Your task to perform on an android device: Open CNN.com Image 0: 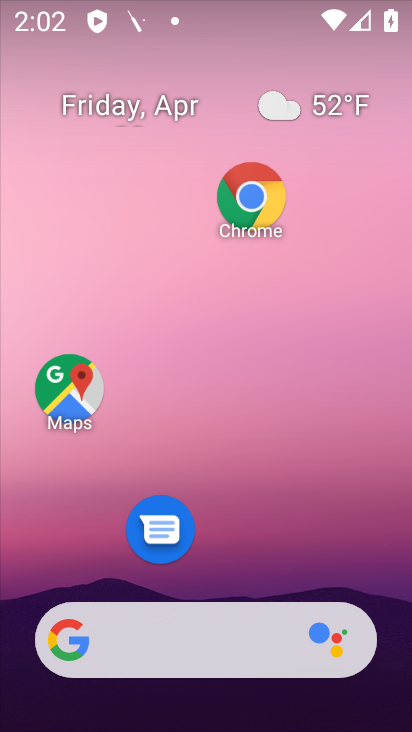
Step 0: click (245, 632)
Your task to perform on an android device: Open CNN.com Image 1: 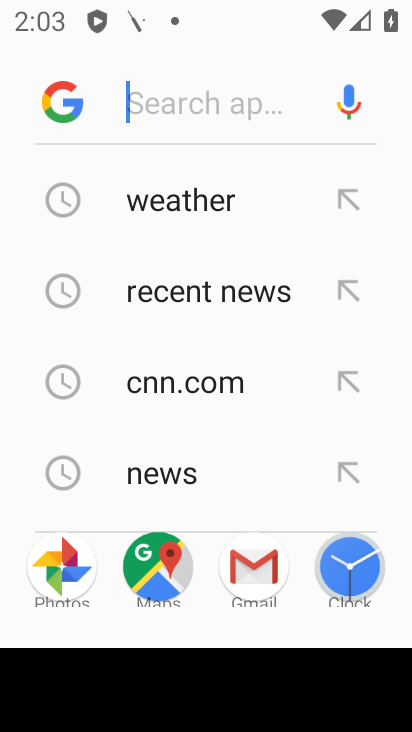
Step 1: type "CNN.com"
Your task to perform on an android device: Open CNN.com Image 2: 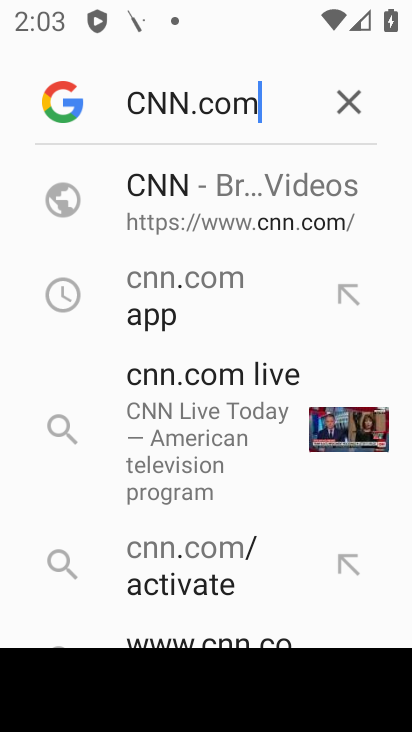
Step 2: click (223, 221)
Your task to perform on an android device: Open CNN.com Image 3: 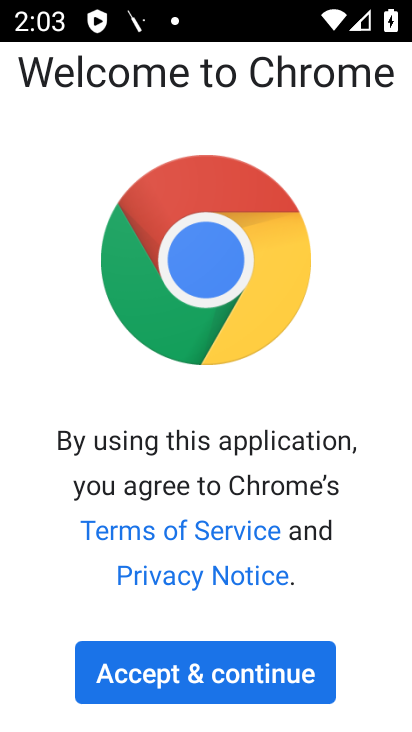
Step 3: click (283, 659)
Your task to perform on an android device: Open CNN.com Image 4: 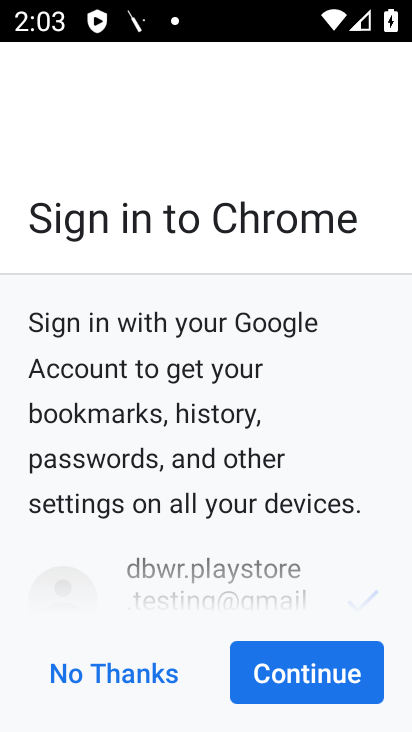
Step 4: click (288, 655)
Your task to perform on an android device: Open CNN.com Image 5: 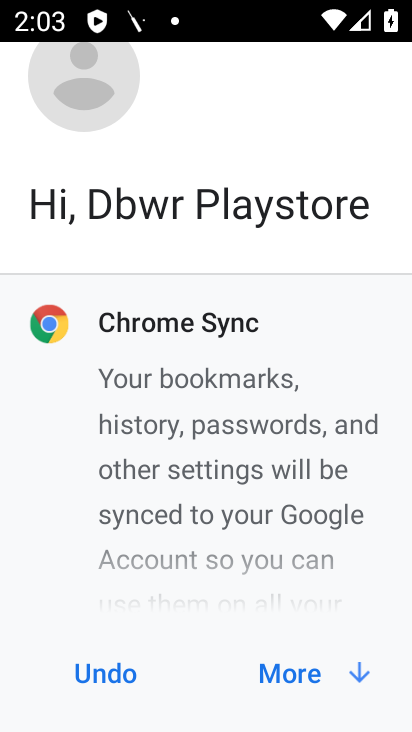
Step 5: click (291, 670)
Your task to perform on an android device: Open CNN.com Image 6: 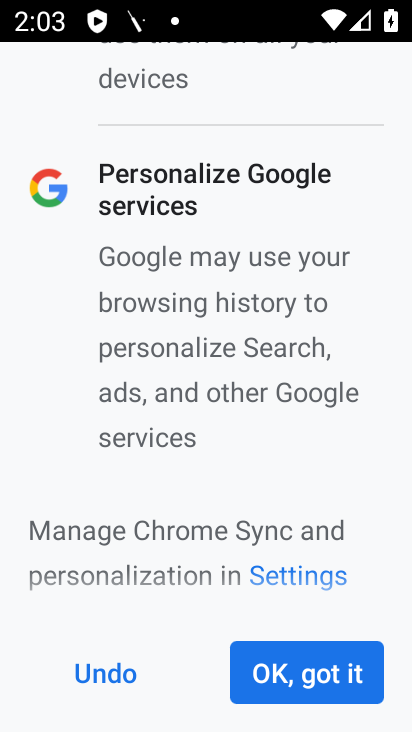
Step 6: click (291, 670)
Your task to perform on an android device: Open CNN.com Image 7: 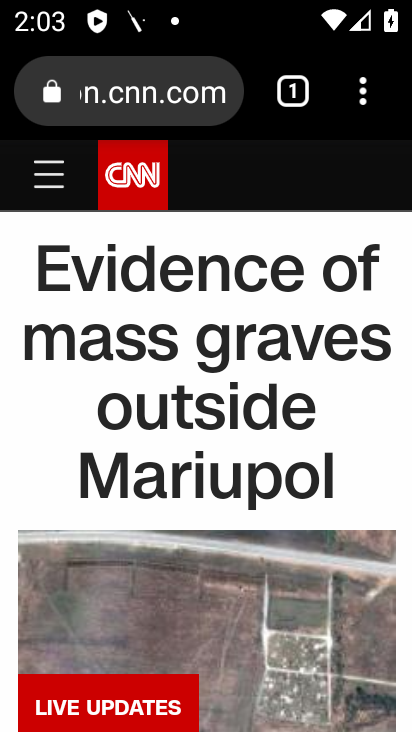
Step 7: task complete